Your task to perform on an android device: What's the weather going to be tomorrow? Image 0: 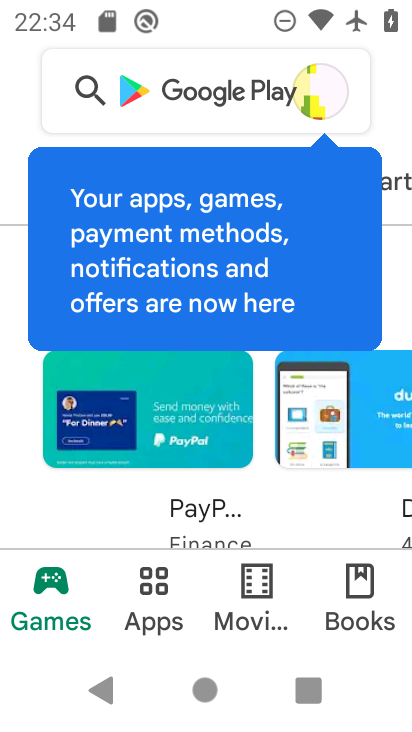
Step 0: press home button
Your task to perform on an android device: What's the weather going to be tomorrow? Image 1: 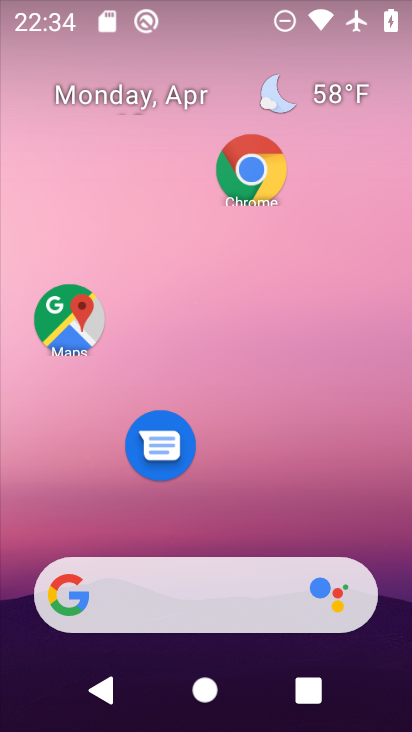
Step 1: drag from (187, 529) to (180, 109)
Your task to perform on an android device: What's the weather going to be tomorrow? Image 2: 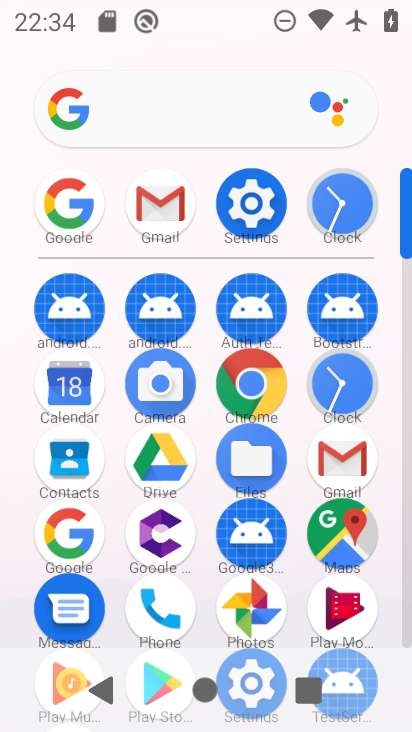
Step 2: click (52, 194)
Your task to perform on an android device: What's the weather going to be tomorrow? Image 3: 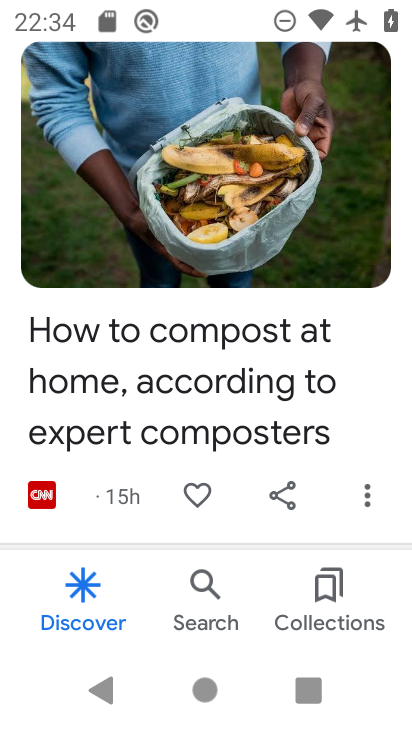
Step 3: drag from (253, 191) to (255, 458)
Your task to perform on an android device: What's the weather going to be tomorrow? Image 4: 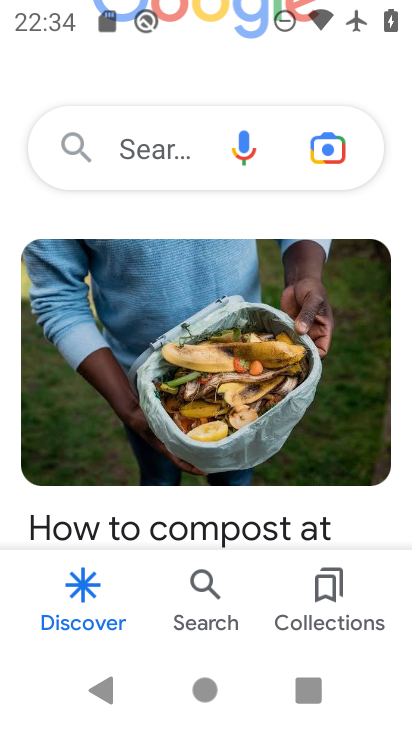
Step 4: drag from (152, 196) to (152, 477)
Your task to perform on an android device: What's the weather going to be tomorrow? Image 5: 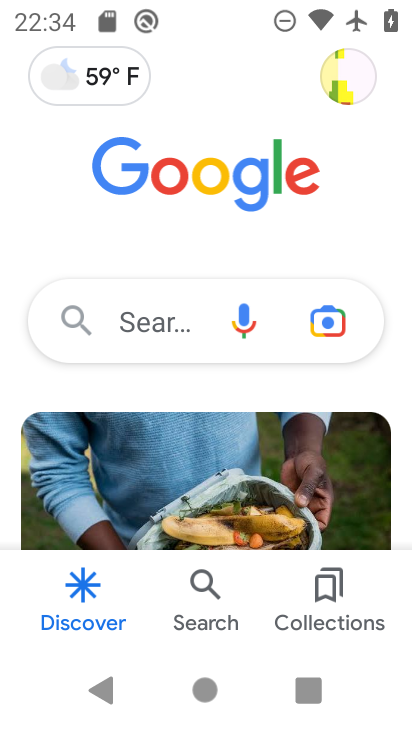
Step 5: click (83, 72)
Your task to perform on an android device: What's the weather going to be tomorrow? Image 6: 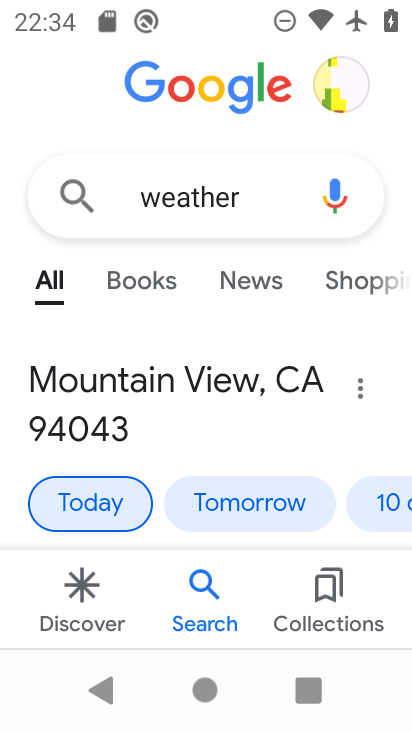
Step 6: click (219, 504)
Your task to perform on an android device: What's the weather going to be tomorrow? Image 7: 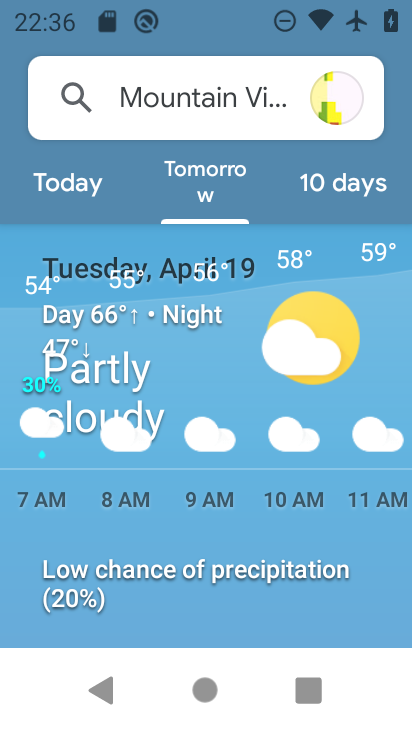
Step 7: task complete